Your task to perform on an android device: toggle airplane mode Image 0: 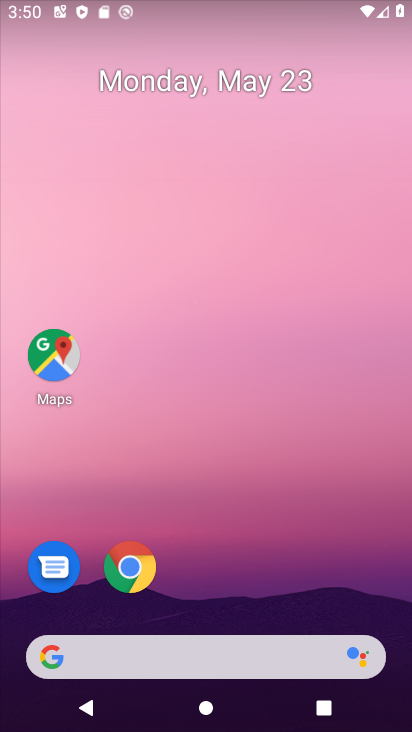
Step 0: drag from (377, 640) to (341, 219)
Your task to perform on an android device: toggle airplane mode Image 1: 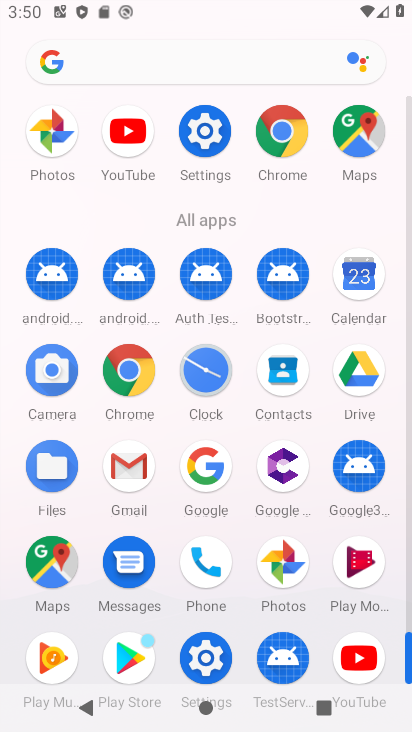
Step 1: click (201, 132)
Your task to perform on an android device: toggle airplane mode Image 2: 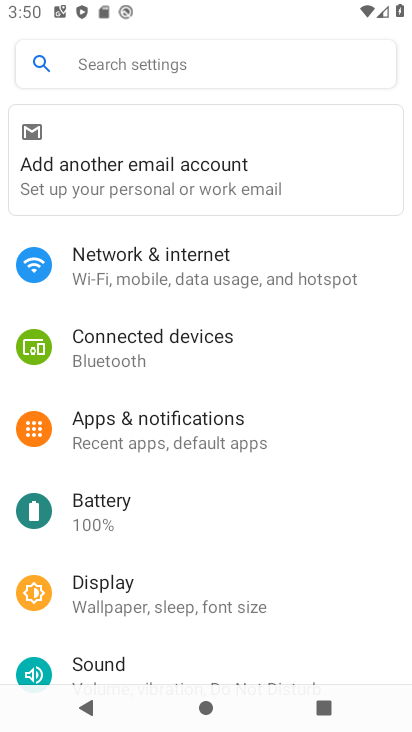
Step 2: click (156, 250)
Your task to perform on an android device: toggle airplane mode Image 3: 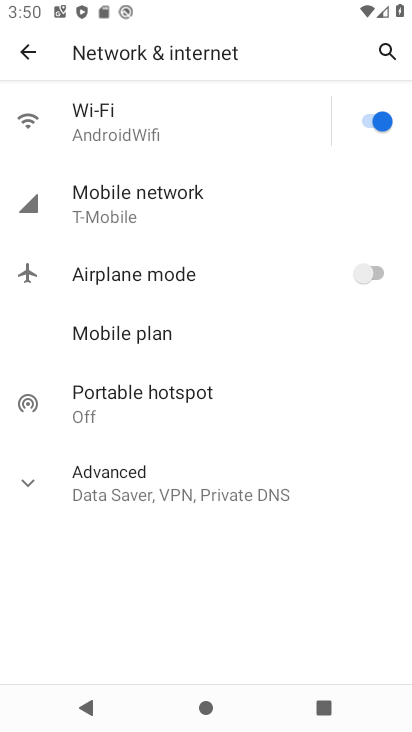
Step 3: click (374, 274)
Your task to perform on an android device: toggle airplane mode Image 4: 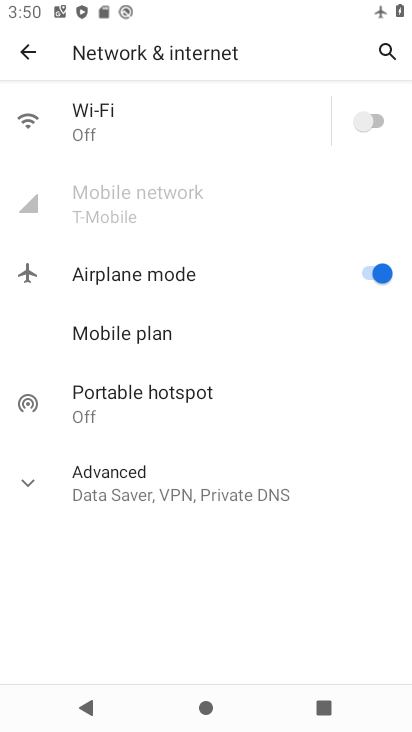
Step 4: task complete